Your task to perform on an android device: Check the weather Image 0: 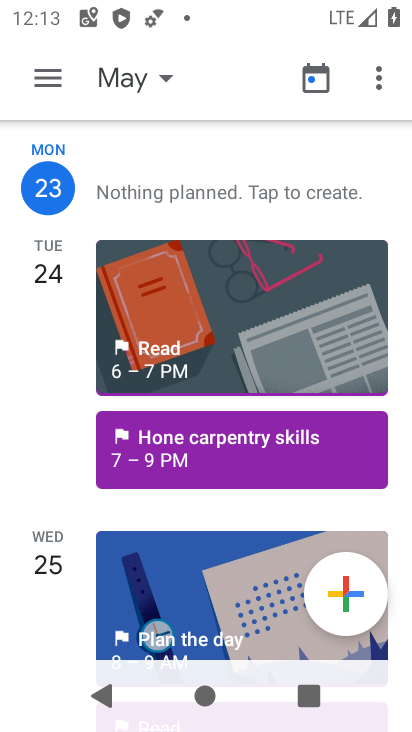
Step 0: press home button
Your task to perform on an android device: Check the weather Image 1: 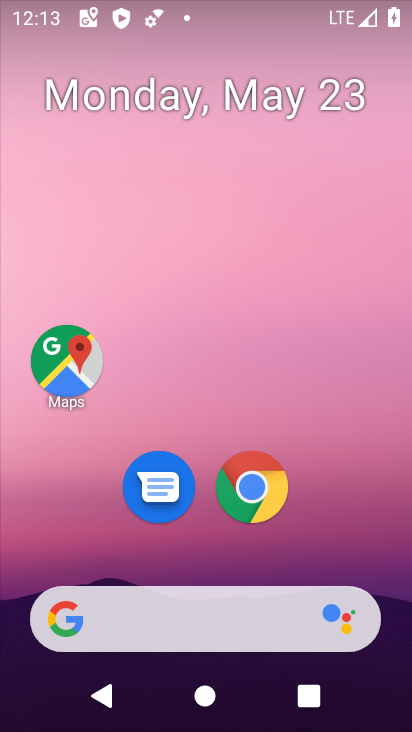
Step 1: click (220, 623)
Your task to perform on an android device: Check the weather Image 2: 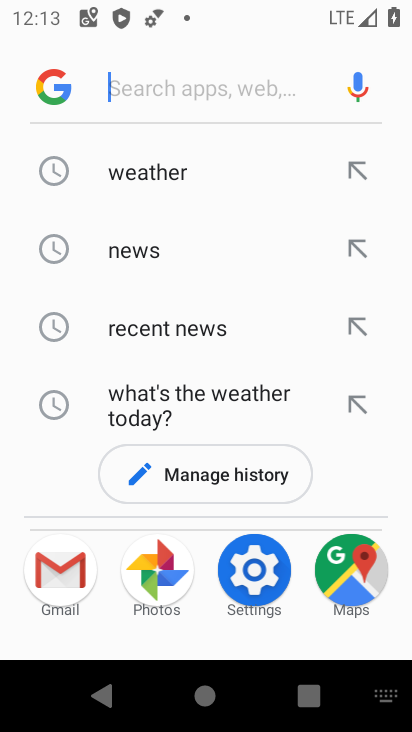
Step 2: click (133, 175)
Your task to perform on an android device: Check the weather Image 3: 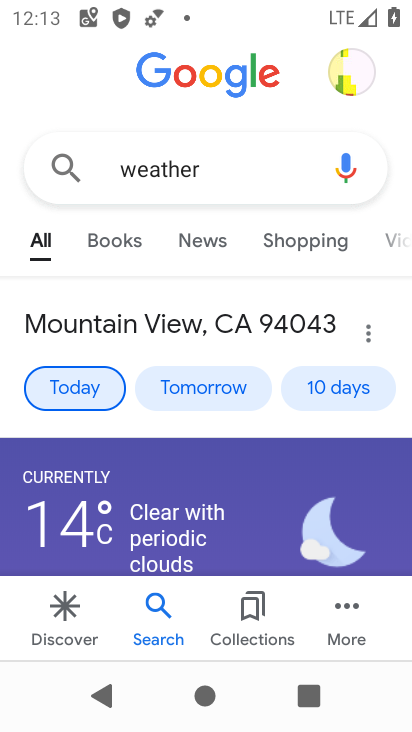
Step 3: click (80, 387)
Your task to perform on an android device: Check the weather Image 4: 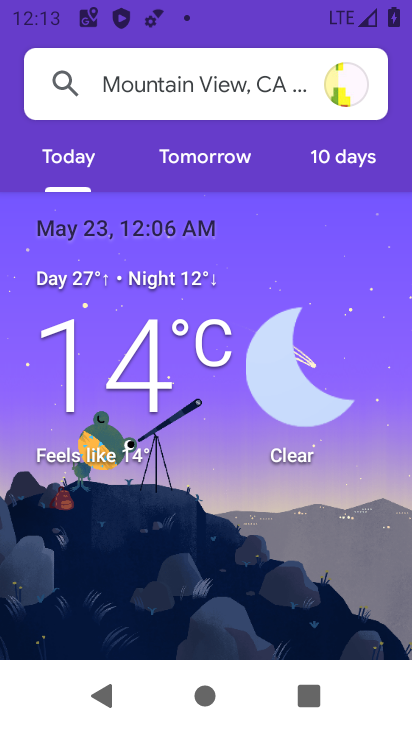
Step 4: task complete